Your task to perform on an android device: Open Reddit.com Image 0: 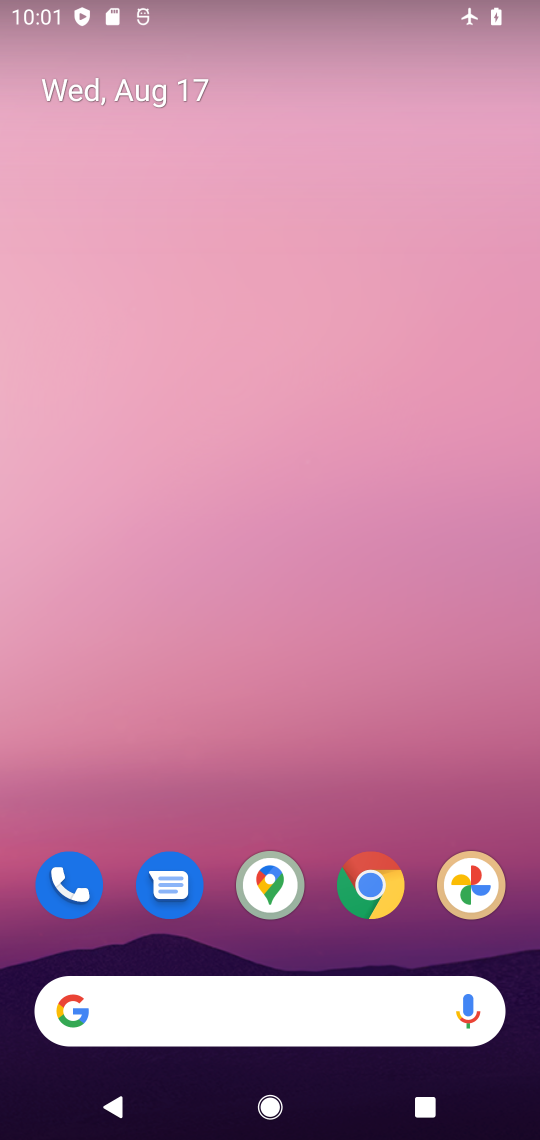
Step 0: click (366, 882)
Your task to perform on an android device: Open Reddit.com Image 1: 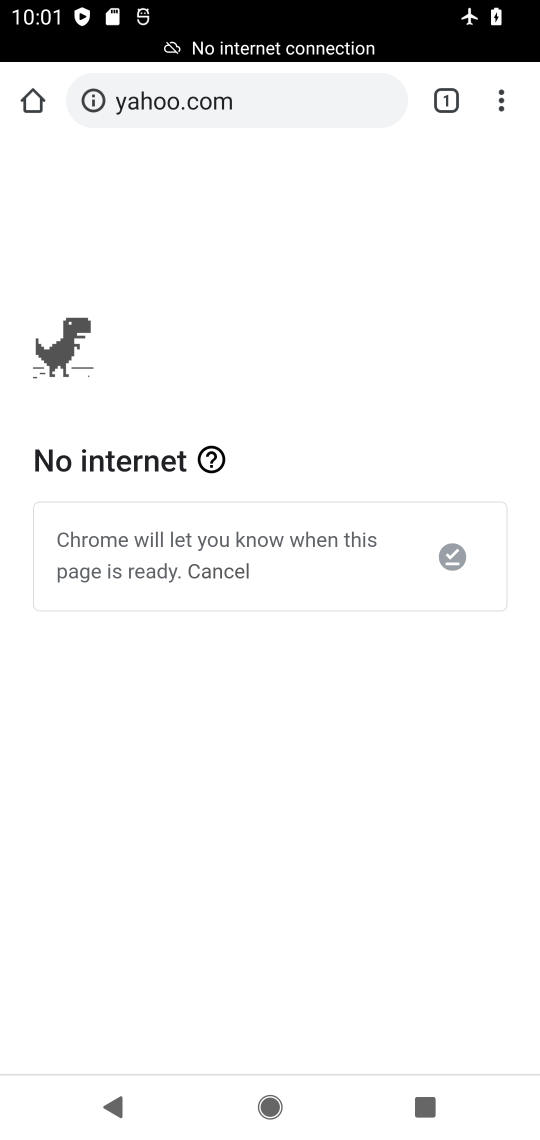
Step 1: click (282, 103)
Your task to perform on an android device: Open Reddit.com Image 2: 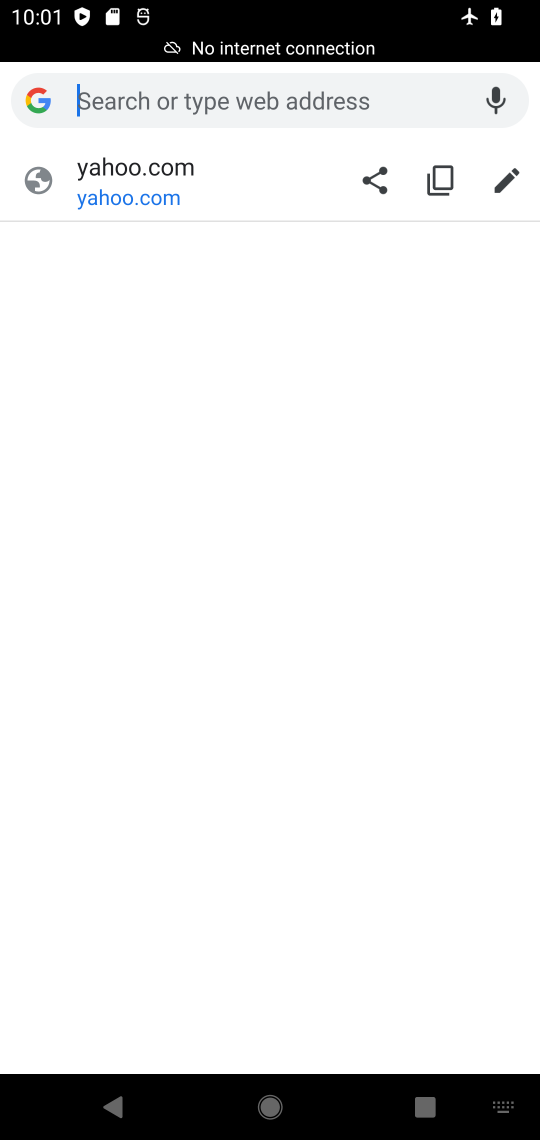
Step 2: type "reddit.com"
Your task to perform on an android device: Open Reddit.com Image 3: 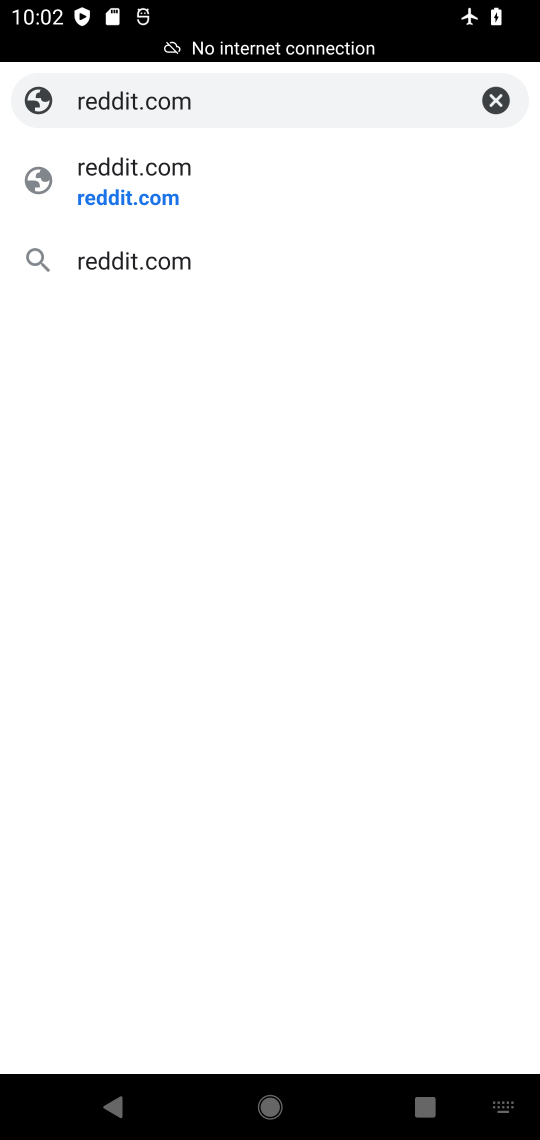
Step 3: click (157, 196)
Your task to perform on an android device: Open Reddit.com Image 4: 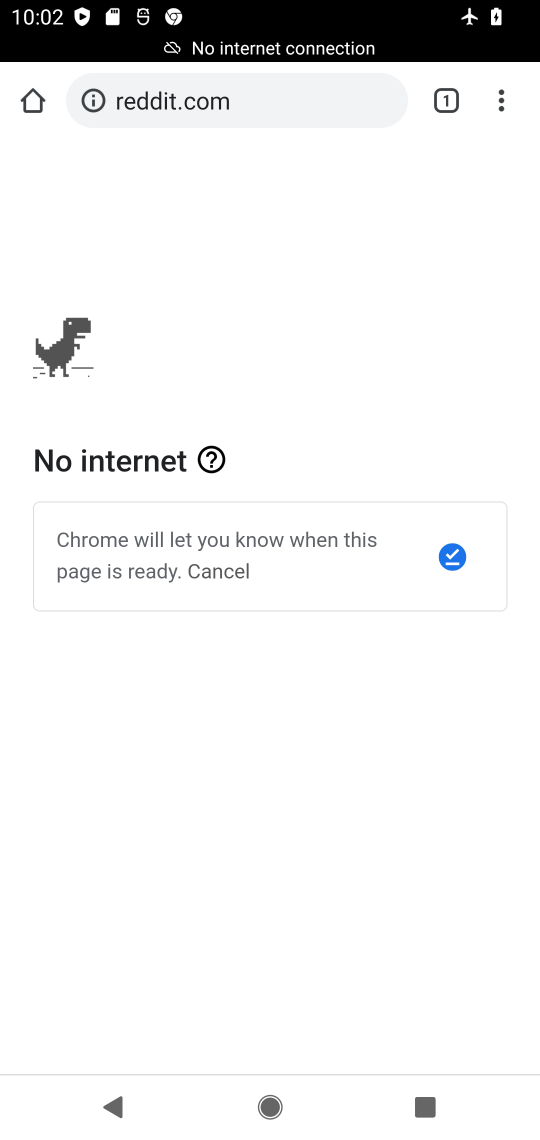
Step 4: task complete